Your task to perform on an android device: remove spam from my inbox in the gmail app Image 0: 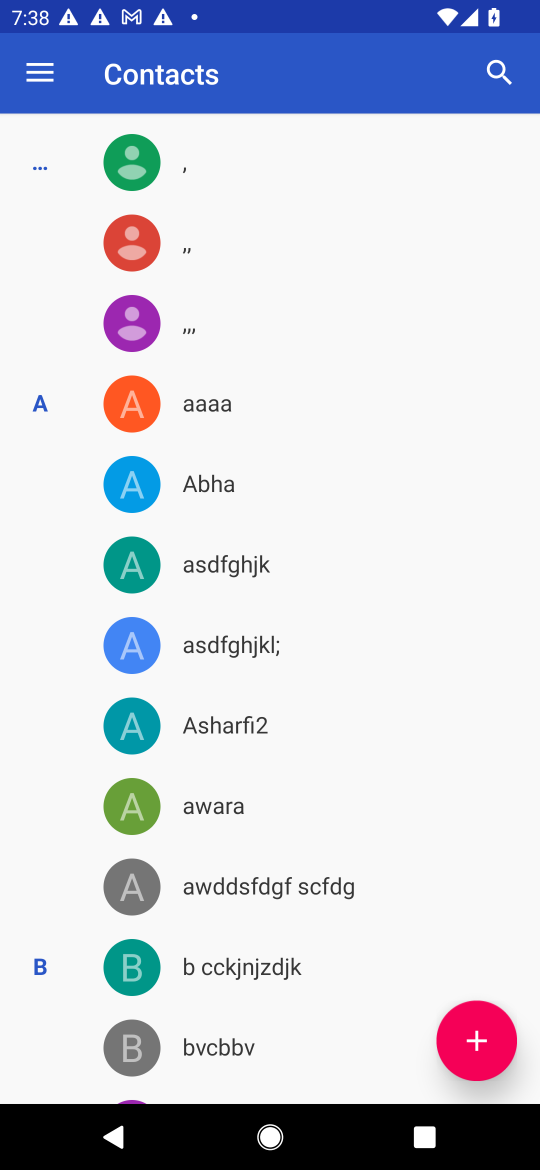
Step 0: press home button
Your task to perform on an android device: remove spam from my inbox in the gmail app Image 1: 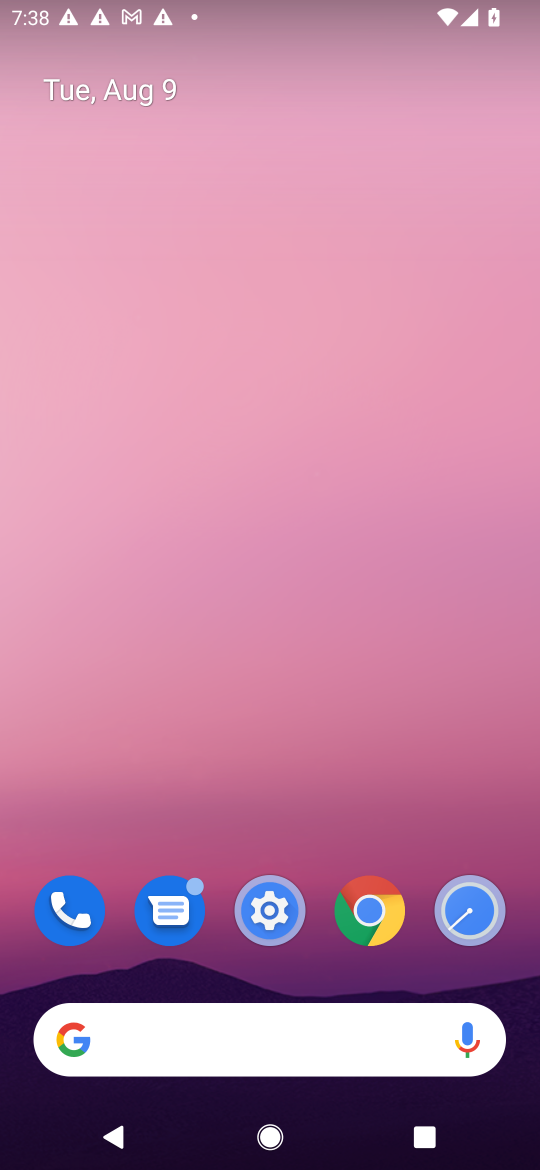
Step 1: drag from (267, 996) to (345, 228)
Your task to perform on an android device: remove spam from my inbox in the gmail app Image 2: 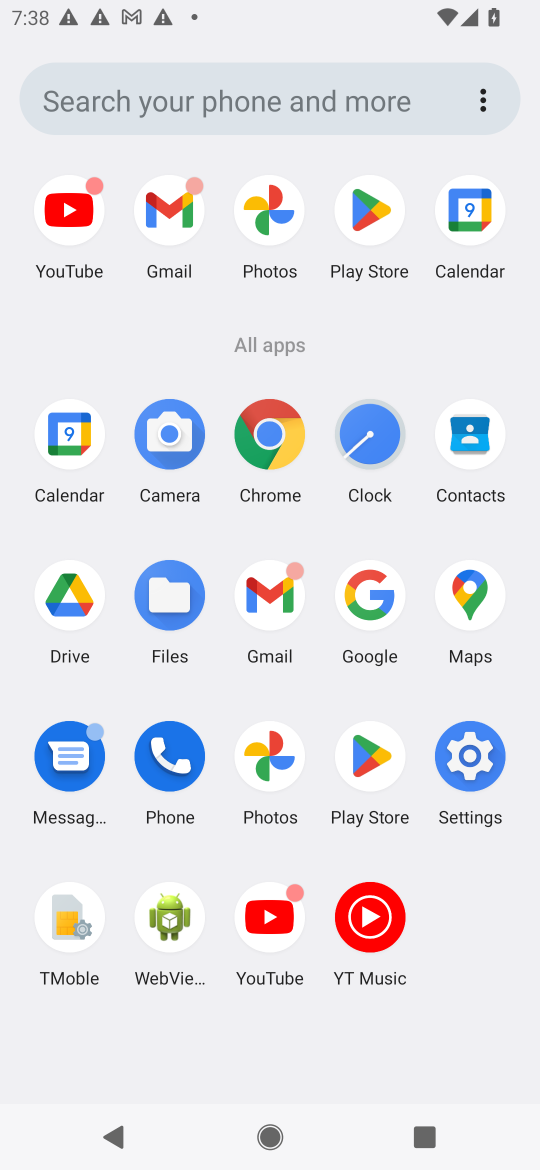
Step 2: click (264, 645)
Your task to perform on an android device: remove spam from my inbox in the gmail app Image 3: 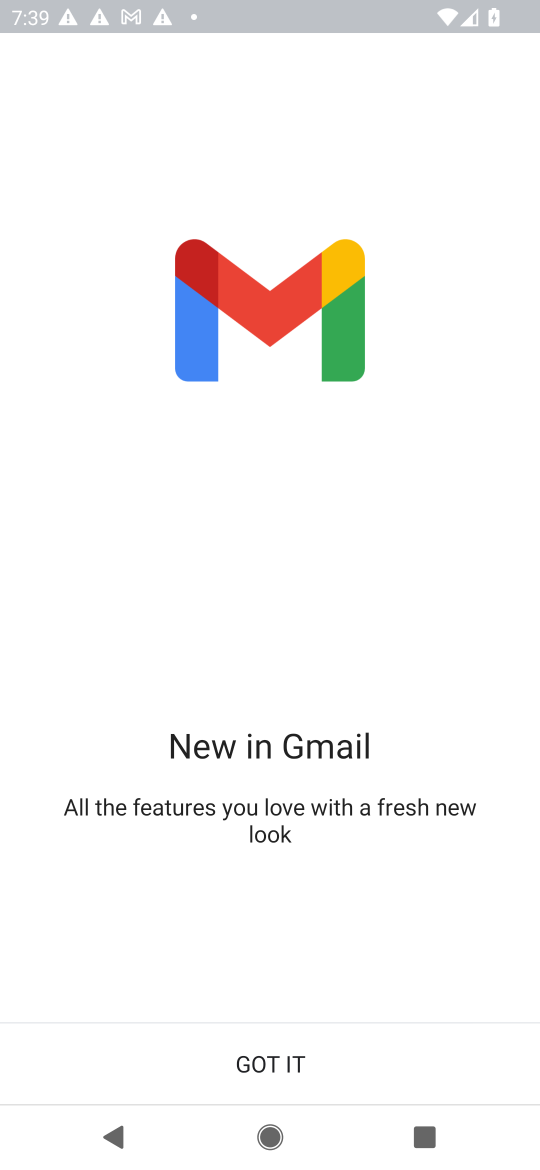
Step 3: click (402, 1047)
Your task to perform on an android device: remove spam from my inbox in the gmail app Image 4: 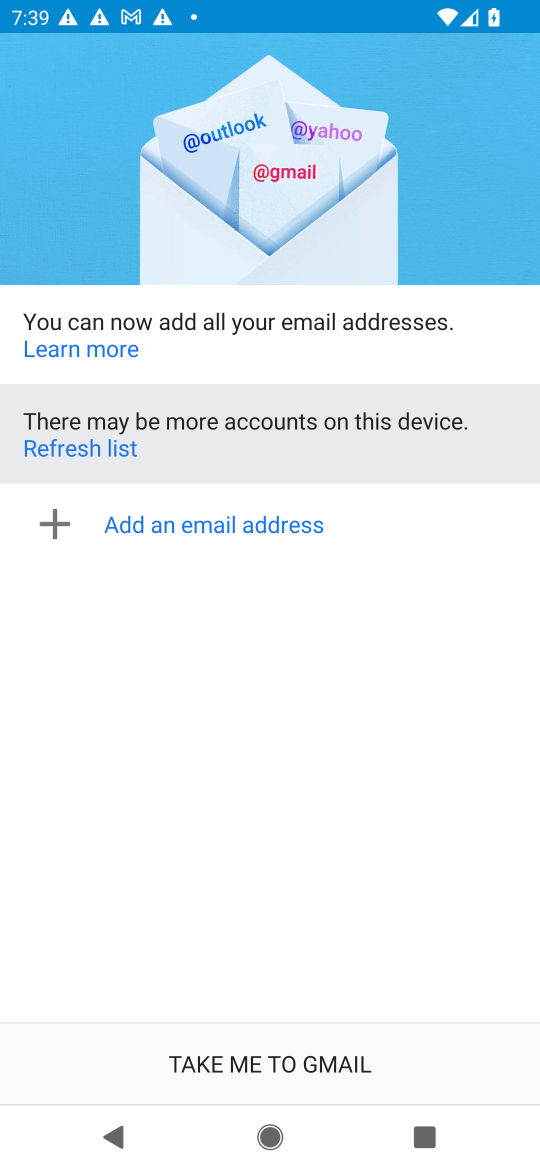
Step 4: click (338, 1072)
Your task to perform on an android device: remove spam from my inbox in the gmail app Image 5: 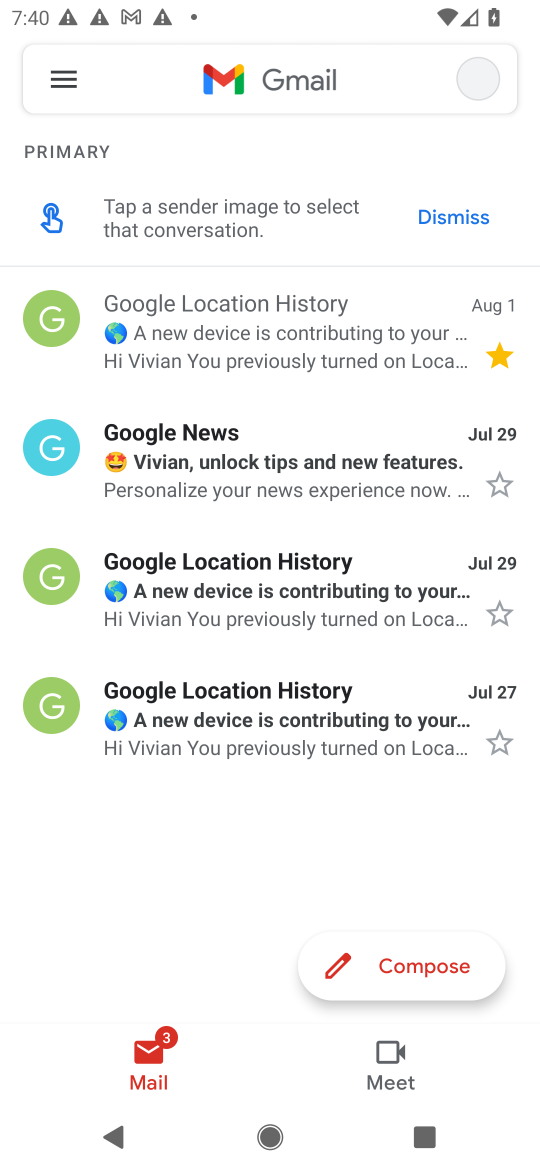
Step 5: click (75, 90)
Your task to perform on an android device: remove spam from my inbox in the gmail app Image 6: 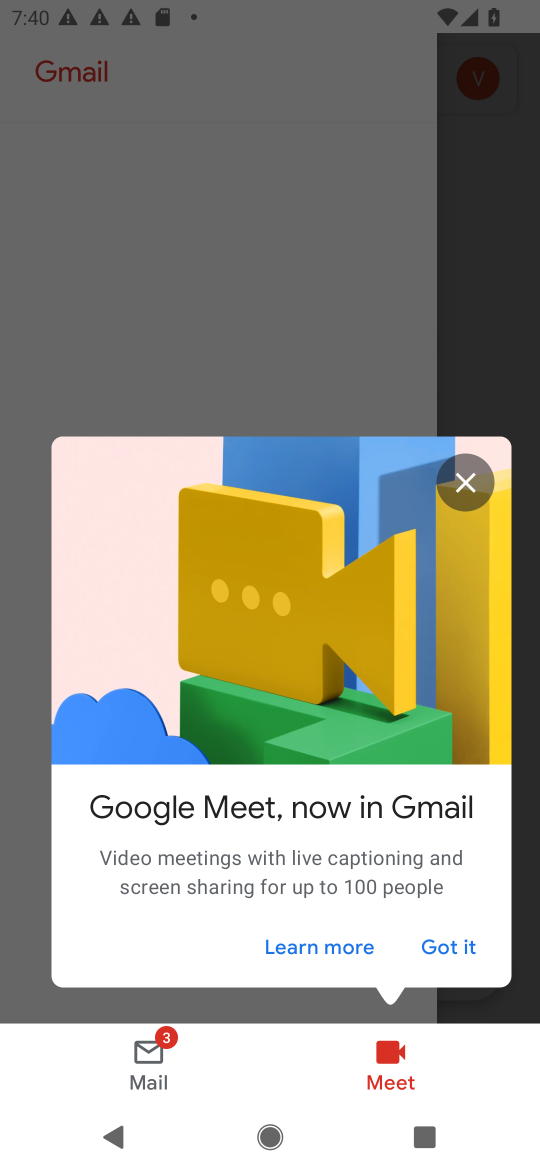
Step 6: click (472, 490)
Your task to perform on an android device: remove spam from my inbox in the gmail app Image 7: 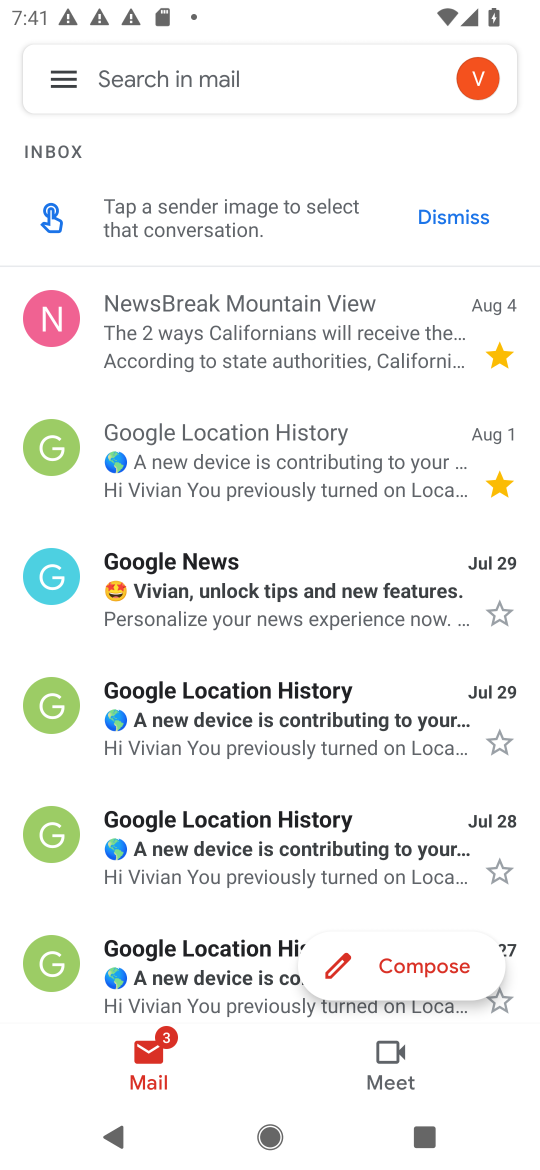
Step 7: task complete